Your task to perform on an android device: check battery use Image 0: 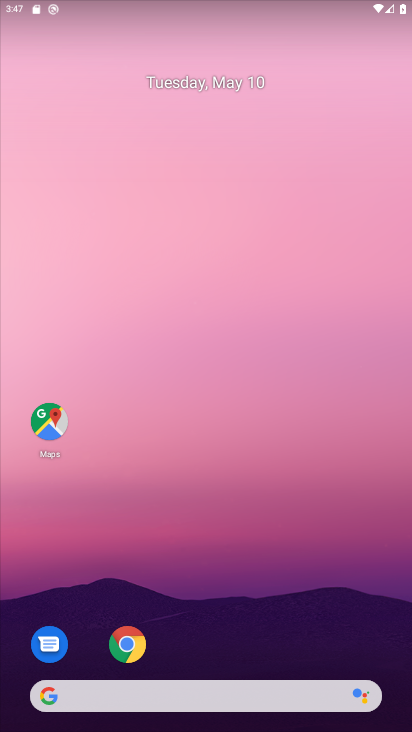
Step 0: drag from (205, 606) to (253, 0)
Your task to perform on an android device: check battery use Image 1: 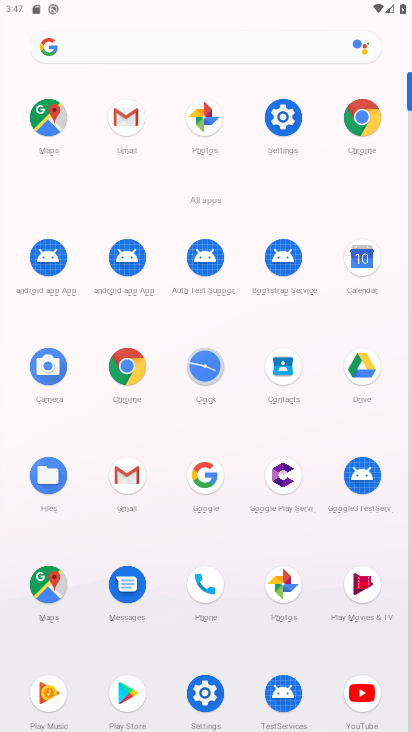
Step 1: click (280, 115)
Your task to perform on an android device: check battery use Image 2: 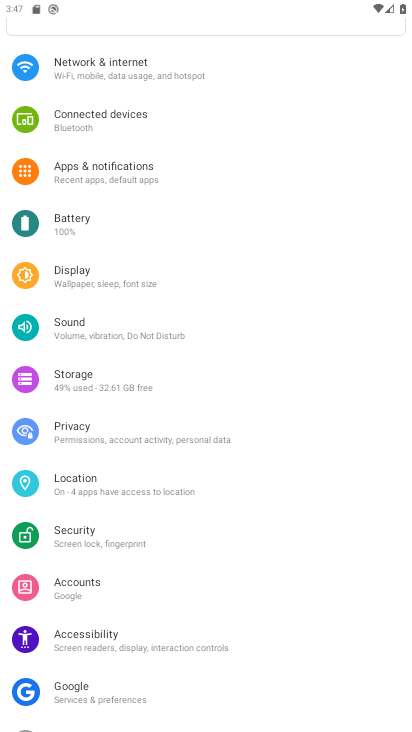
Step 2: click (94, 221)
Your task to perform on an android device: check battery use Image 3: 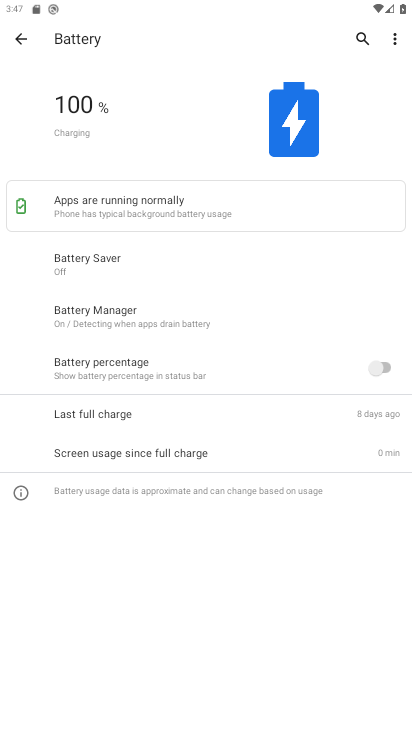
Step 3: click (393, 35)
Your task to perform on an android device: check battery use Image 4: 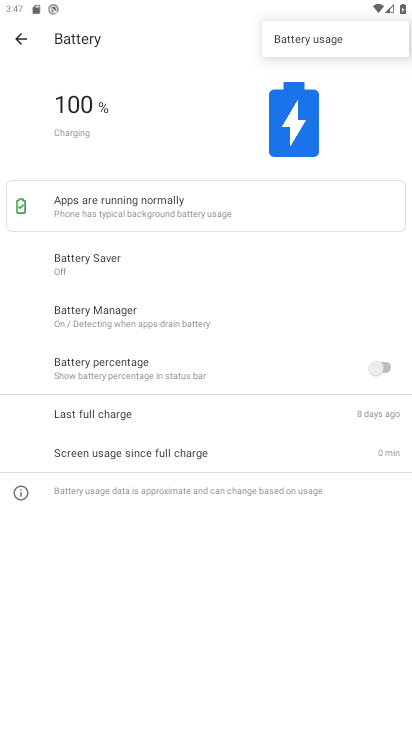
Step 4: click (283, 43)
Your task to perform on an android device: check battery use Image 5: 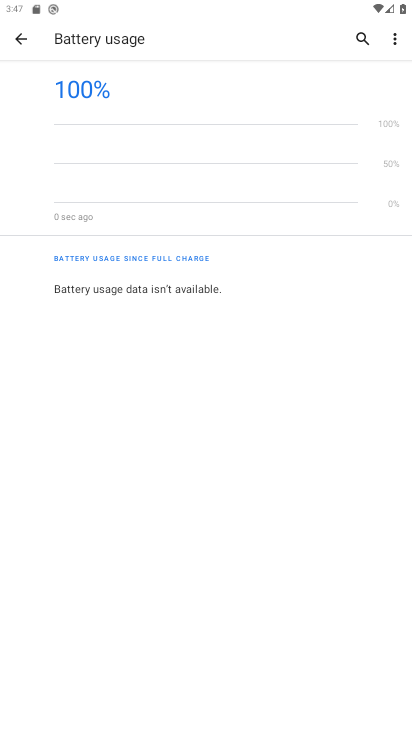
Step 5: task complete